Your task to perform on an android device: turn off data saver in the chrome app Image 0: 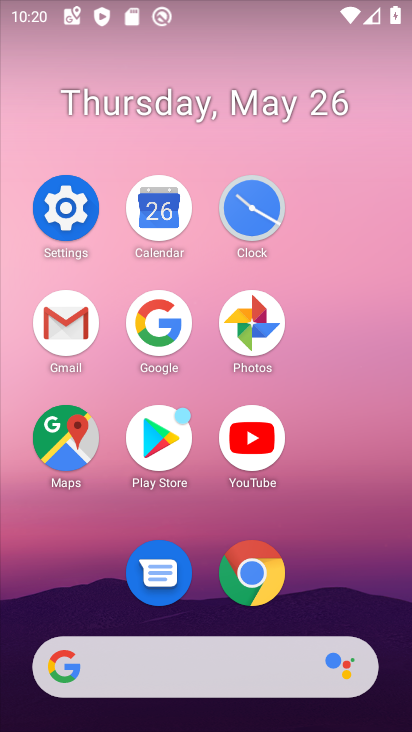
Step 0: click (265, 576)
Your task to perform on an android device: turn off data saver in the chrome app Image 1: 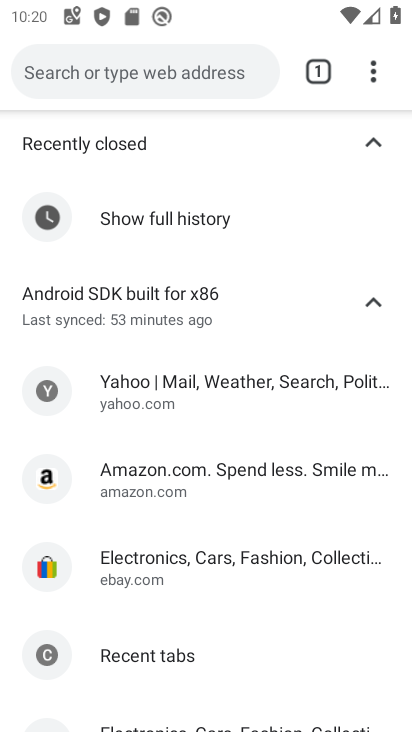
Step 1: click (383, 70)
Your task to perform on an android device: turn off data saver in the chrome app Image 2: 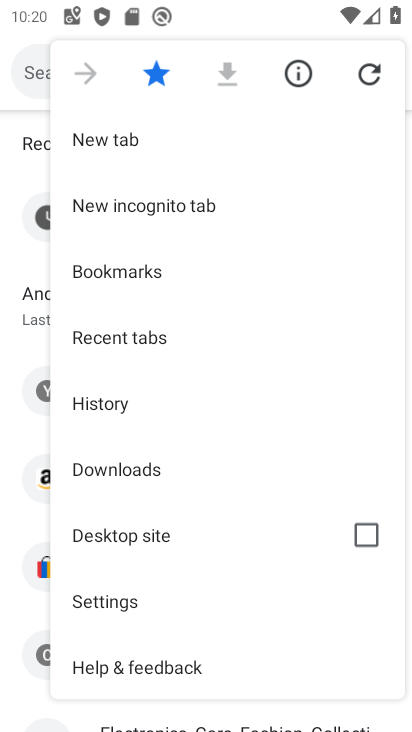
Step 2: drag from (227, 525) to (295, 92)
Your task to perform on an android device: turn off data saver in the chrome app Image 3: 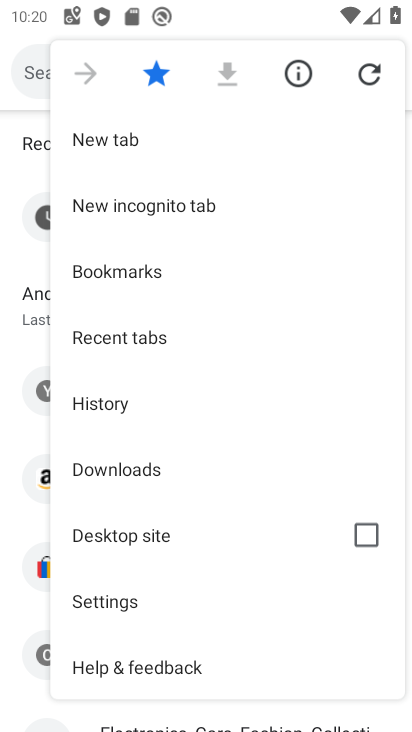
Step 3: click (131, 608)
Your task to perform on an android device: turn off data saver in the chrome app Image 4: 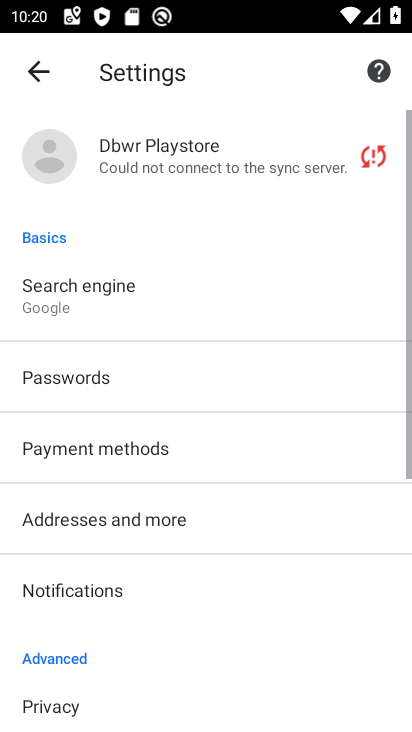
Step 4: task complete